Your task to perform on an android device: add a contact in the contacts app Image 0: 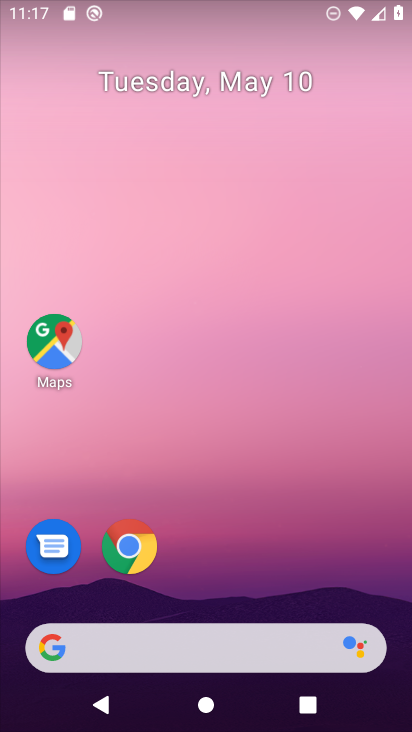
Step 0: drag from (251, 570) to (237, 60)
Your task to perform on an android device: add a contact in the contacts app Image 1: 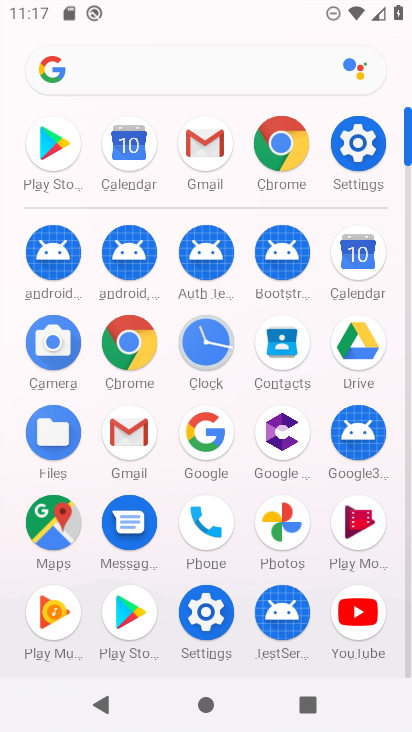
Step 1: click (291, 355)
Your task to perform on an android device: add a contact in the contacts app Image 2: 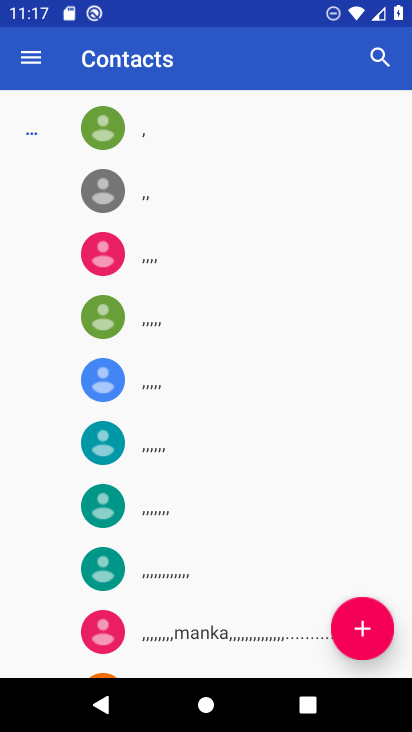
Step 2: click (364, 624)
Your task to perform on an android device: add a contact in the contacts app Image 3: 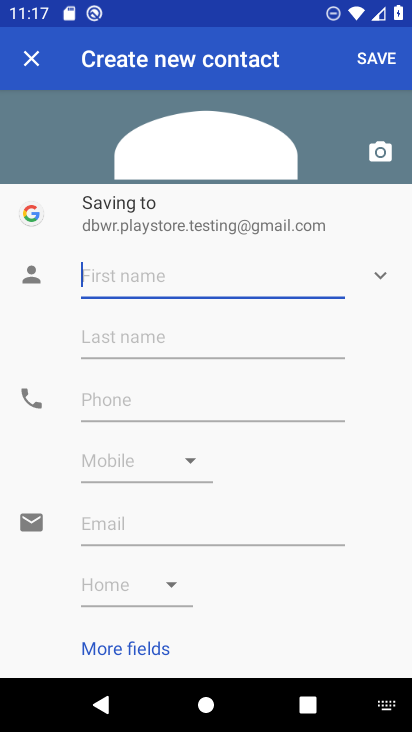
Step 3: click (182, 272)
Your task to perform on an android device: add a contact in the contacts app Image 4: 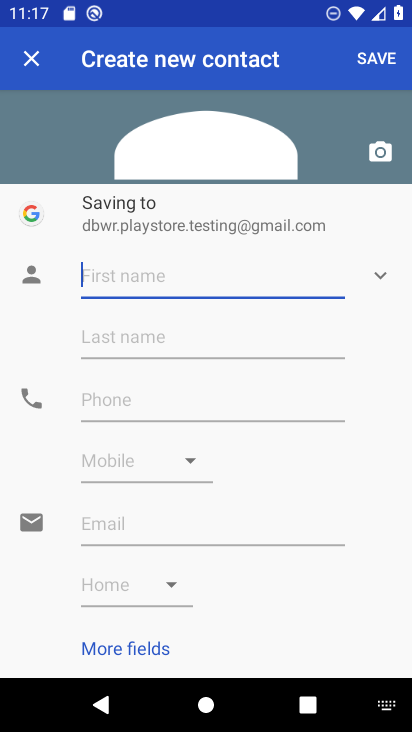
Step 4: type "hippo"
Your task to perform on an android device: add a contact in the contacts app Image 5: 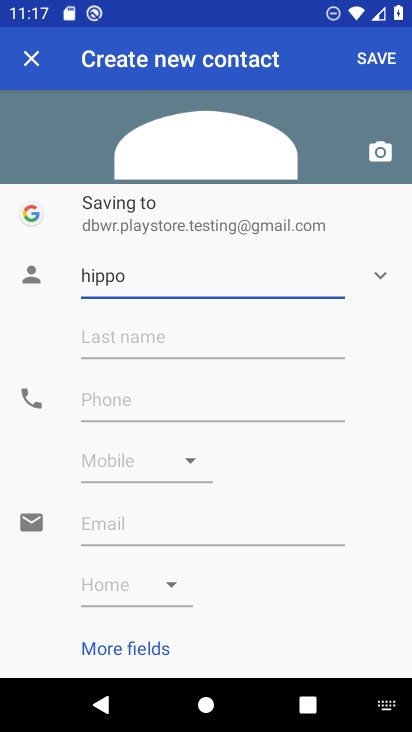
Step 5: click (371, 65)
Your task to perform on an android device: add a contact in the contacts app Image 6: 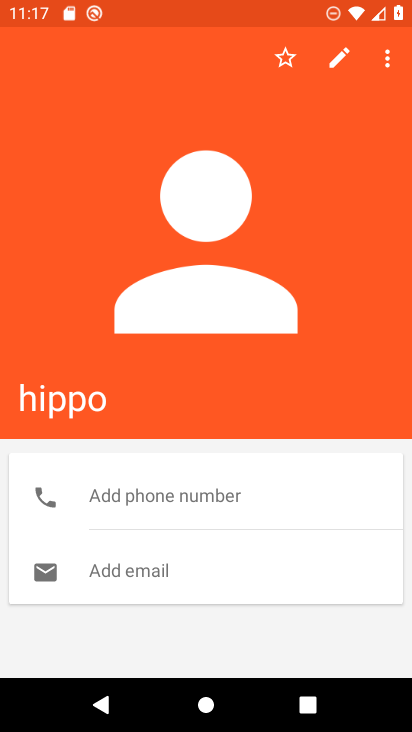
Step 6: task complete